Your task to perform on an android device: set the stopwatch Image 0: 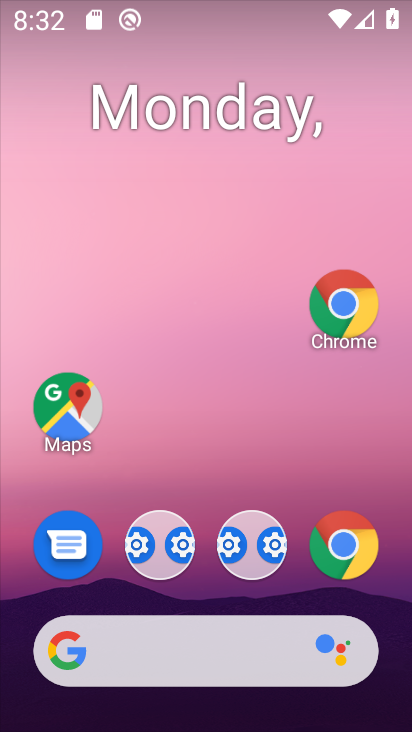
Step 0: drag from (347, 584) to (239, 5)
Your task to perform on an android device: set the stopwatch Image 1: 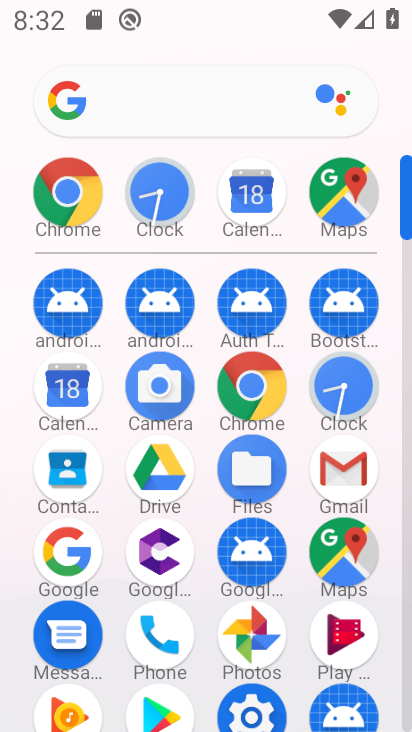
Step 1: click (146, 201)
Your task to perform on an android device: set the stopwatch Image 2: 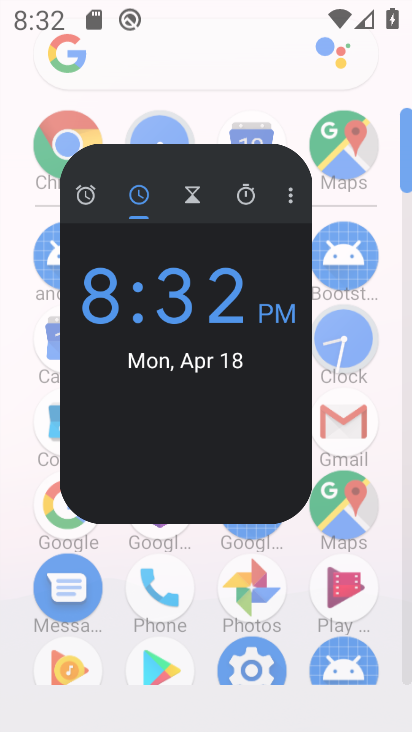
Step 2: click (146, 201)
Your task to perform on an android device: set the stopwatch Image 3: 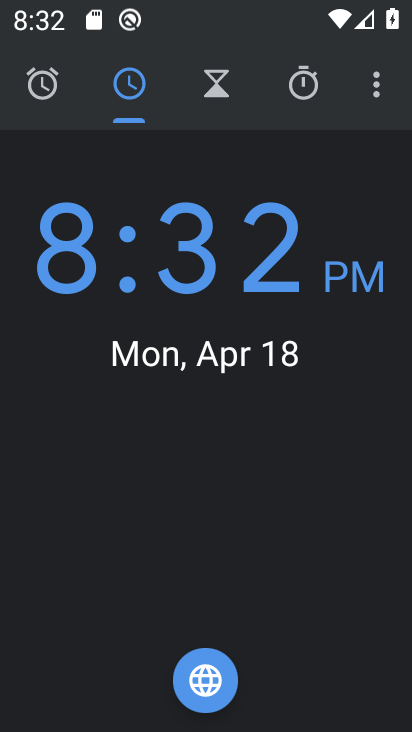
Step 3: click (300, 88)
Your task to perform on an android device: set the stopwatch Image 4: 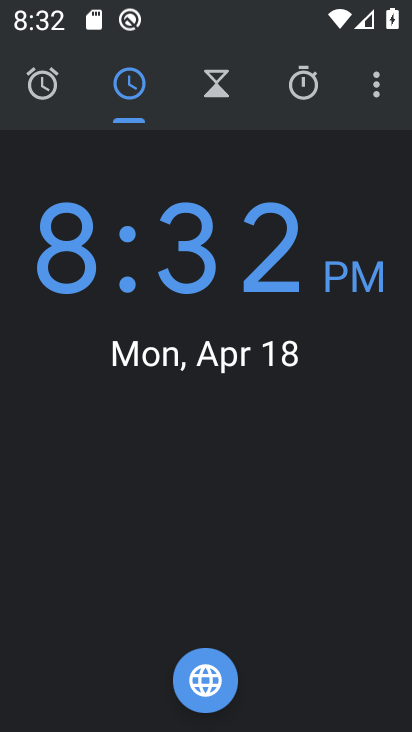
Step 4: click (303, 168)
Your task to perform on an android device: set the stopwatch Image 5: 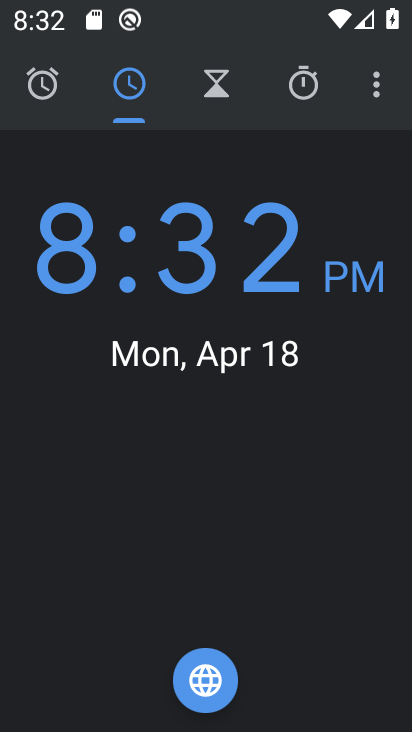
Step 5: click (305, 91)
Your task to perform on an android device: set the stopwatch Image 6: 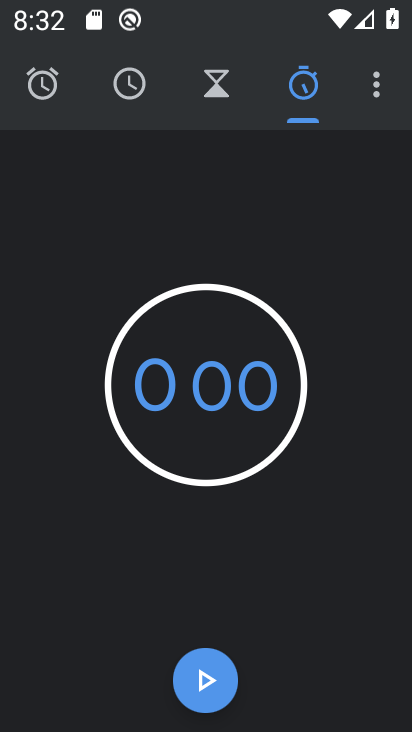
Step 6: click (305, 91)
Your task to perform on an android device: set the stopwatch Image 7: 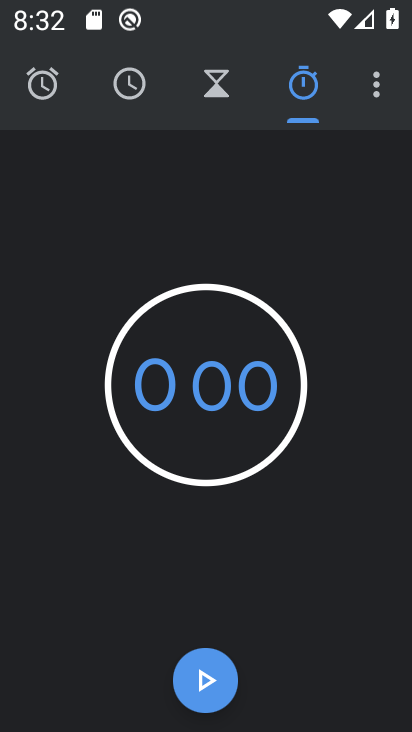
Step 7: click (204, 682)
Your task to perform on an android device: set the stopwatch Image 8: 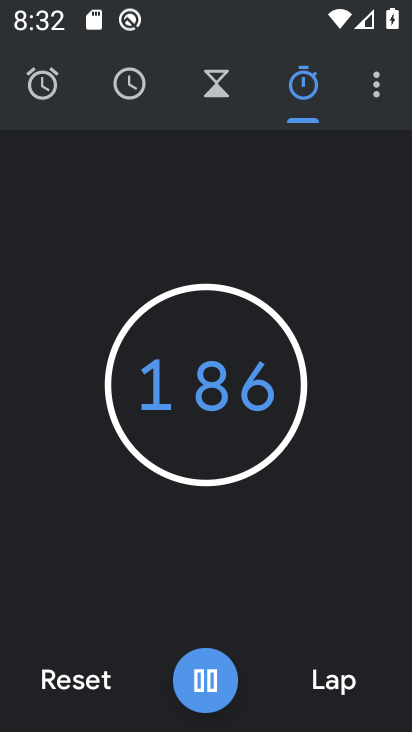
Step 8: click (206, 680)
Your task to perform on an android device: set the stopwatch Image 9: 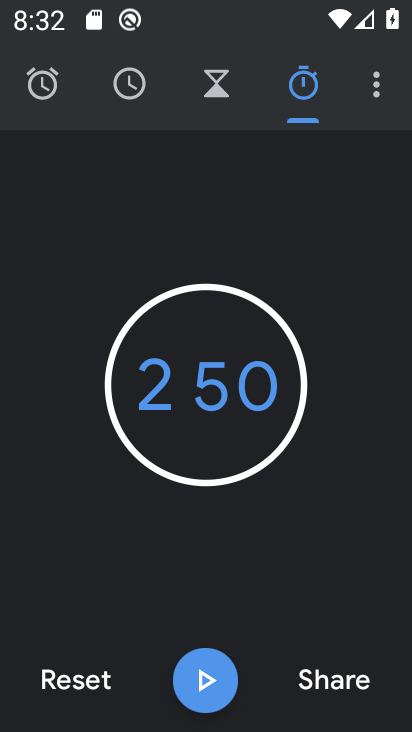
Step 9: task complete